Your task to perform on an android device: Toggle the flashlight Image 0: 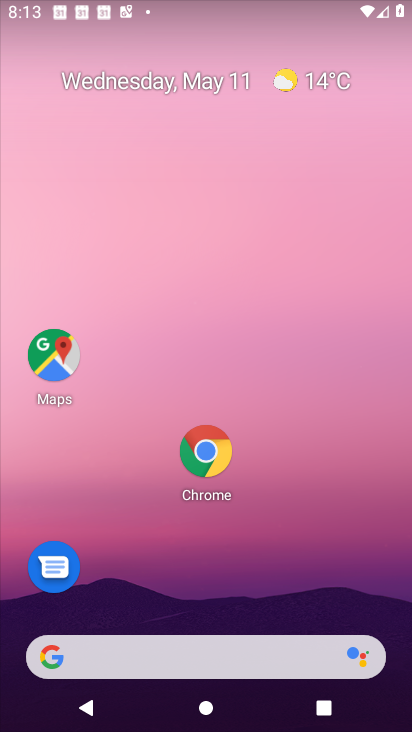
Step 0: drag from (265, 0) to (251, 399)
Your task to perform on an android device: Toggle the flashlight Image 1: 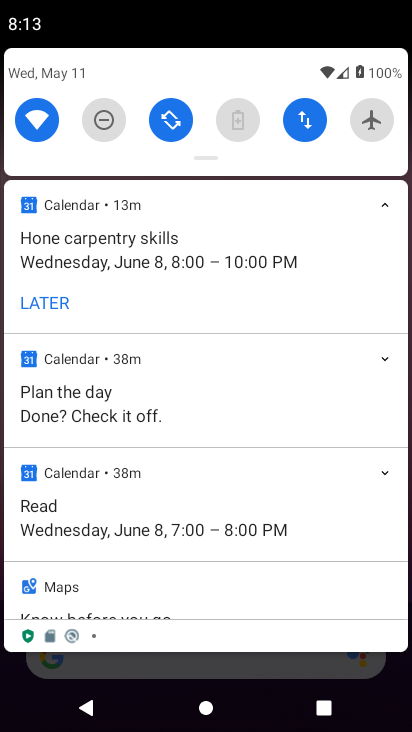
Step 1: task complete